Your task to perform on an android device: turn on javascript in the chrome app Image 0: 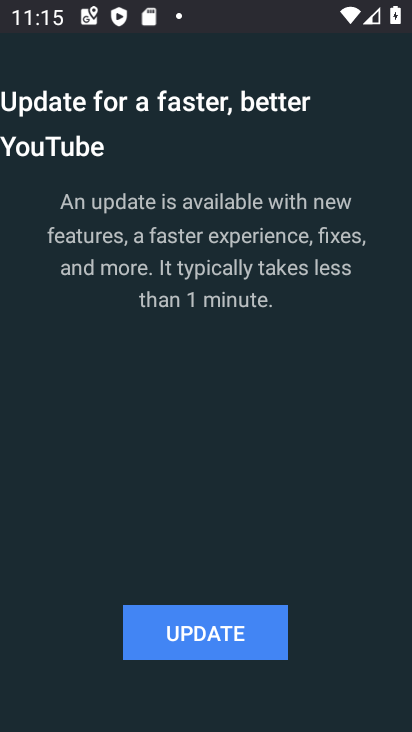
Step 0: press home button
Your task to perform on an android device: turn on javascript in the chrome app Image 1: 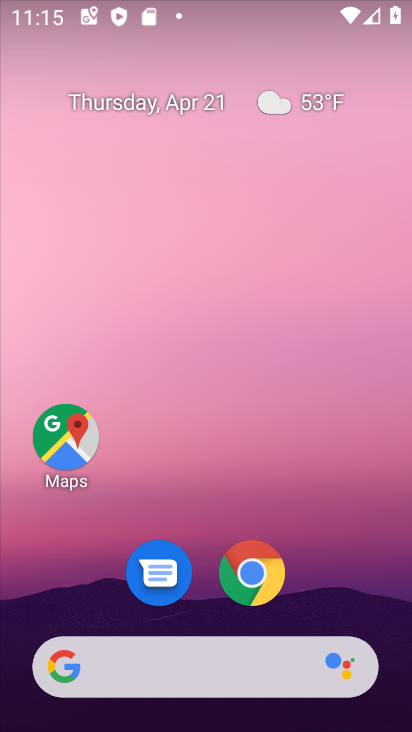
Step 1: drag from (333, 577) to (375, 138)
Your task to perform on an android device: turn on javascript in the chrome app Image 2: 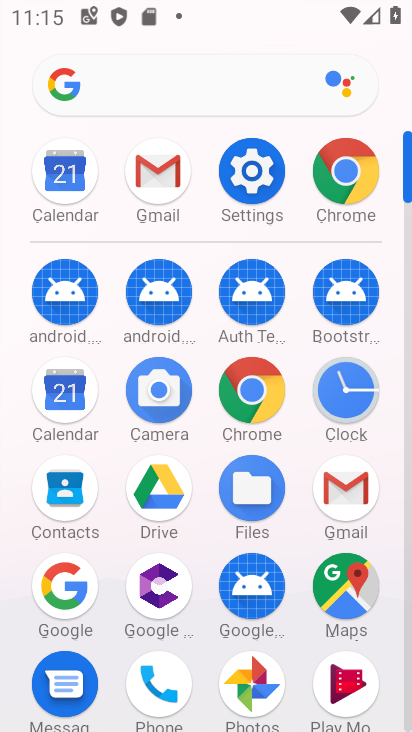
Step 2: click (260, 394)
Your task to perform on an android device: turn on javascript in the chrome app Image 3: 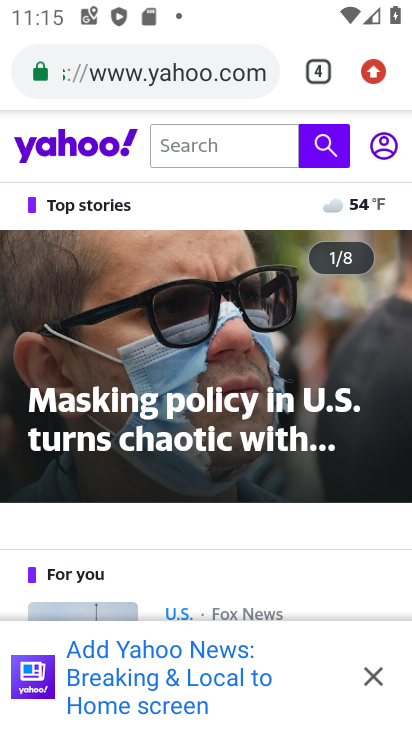
Step 3: drag from (373, 71) to (113, 252)
Your task to perform on an android device: turn on javascript in the chrome app Image 4: 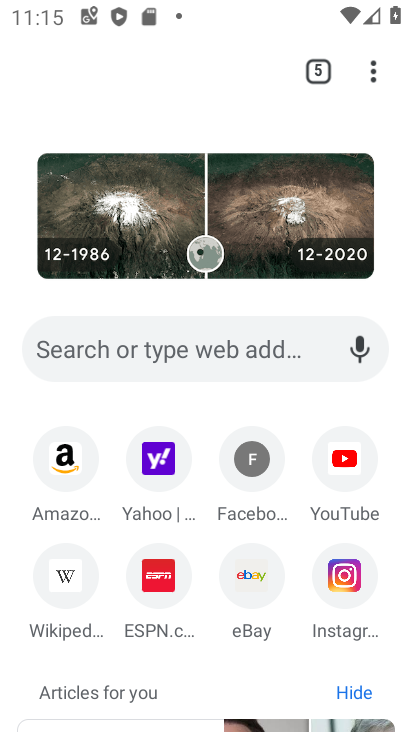
Step 4: click (153, 352)
Your task to perform on an android device: turn on javascript in the chrome app Image 5: 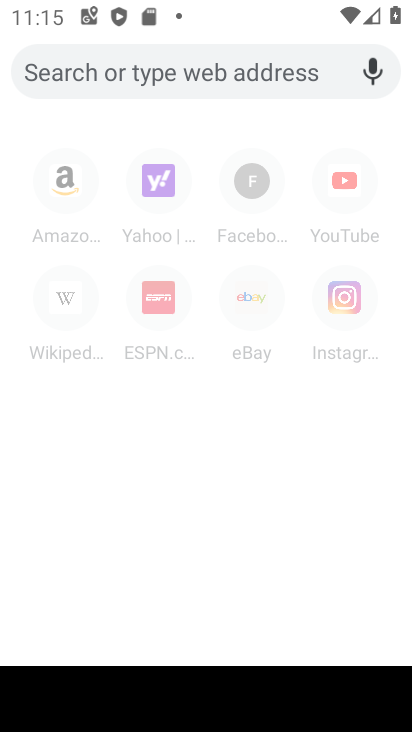
Step 5: press back button
Your task to perform on an android device: turn on javascript in the chrome app Image 6: 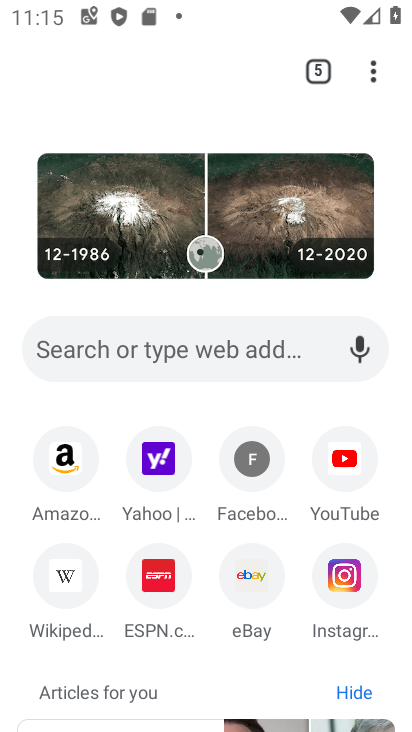
Step 6: drag from (375, 63) to (252, 587)
Your task to perform on an android device: turn on javascript in the chrome app Image 7: 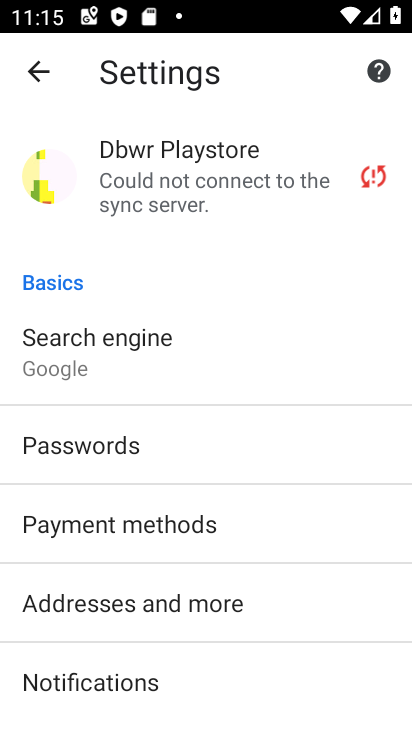
Step 7: drag from (284, 693) to (322, 296)
Your task to perform on an android device: turn on javascript in the chrome app Image 8: 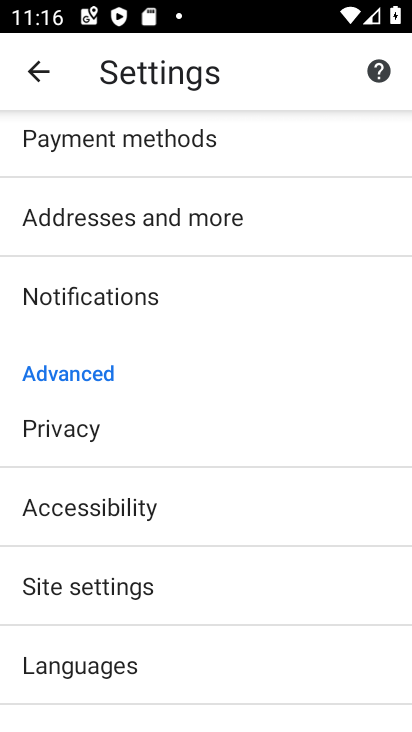
Step 8: click (79, 580)
Your task to perform on an android device: turn on javascript in the chrome app Image 9: 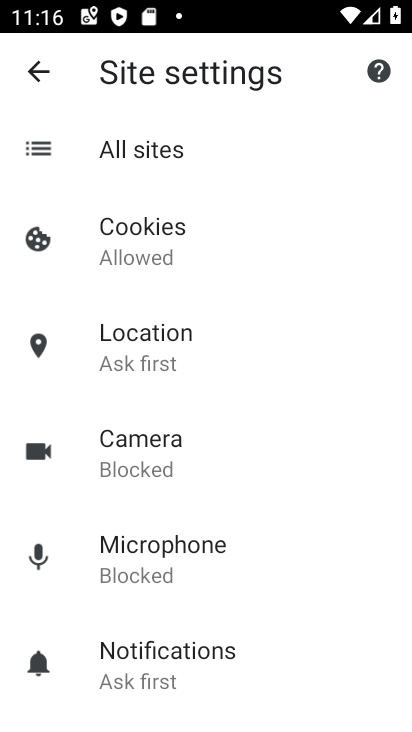
Step 9: drag from (270, 654) to (285, 265)
Your task to perform on an android device: turn on javascript in the chrome app Image 10: 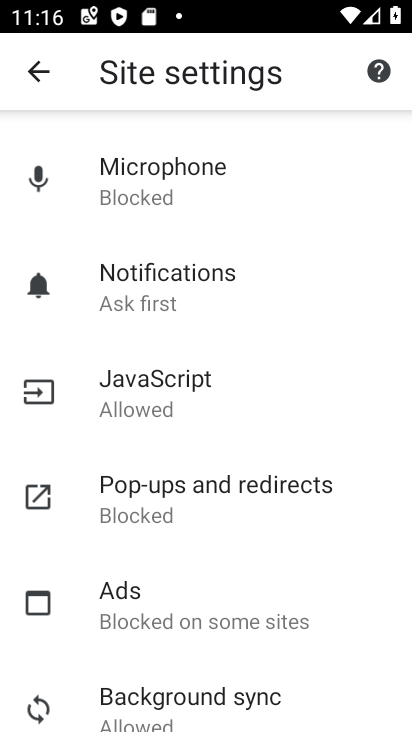
Step 10: click (135, 378)
Your task to perform on an android device: turn on javascript in the chrome app Image 11: 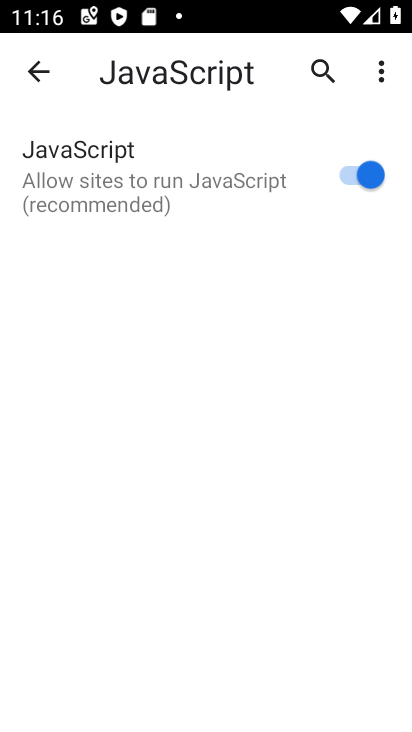
Step 11: task complete